Your task to perform on an android device: Open Android settings Image 0: 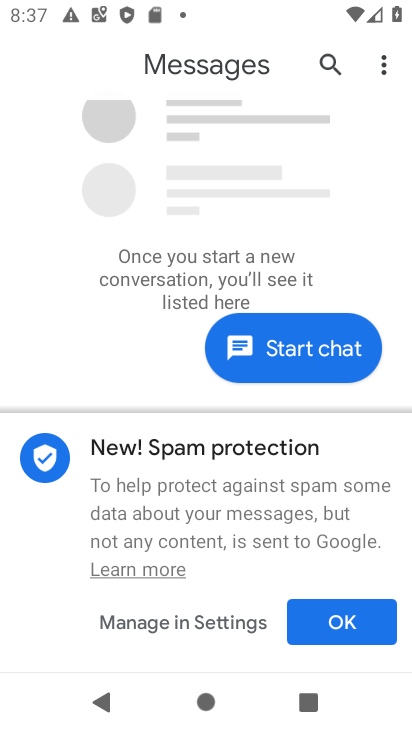
Step 0: press home button
Your task to perform on an android device: Open Android settings Image 1: 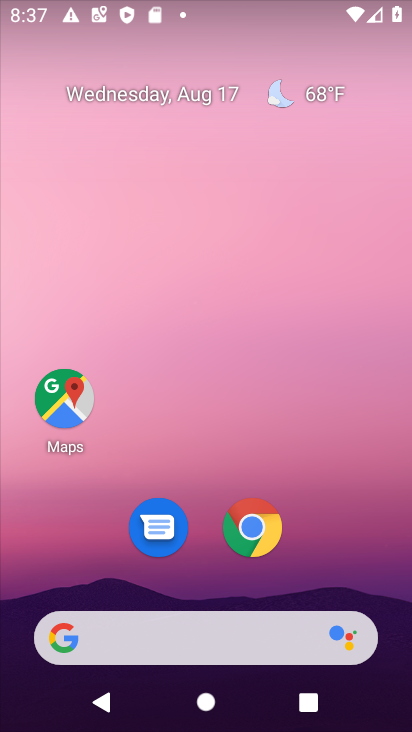
Step 1: drag from (194, 599) to (204, 111)
Your task to perform on an android device: Open Android settings Image 2: 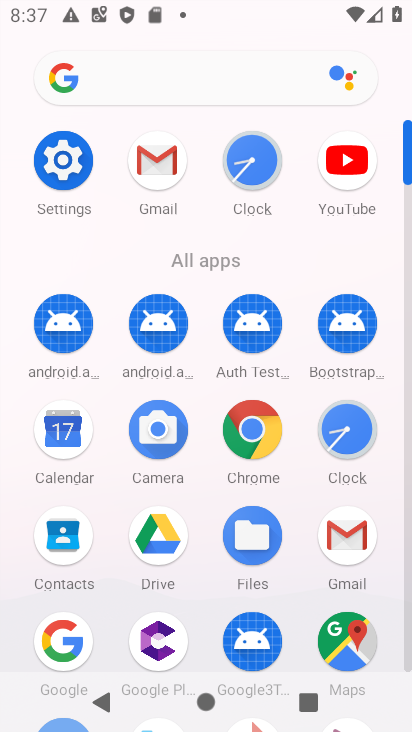
Step 2: click (65, 174)
Your task to perform on an android device: Open Android settings Image 3: 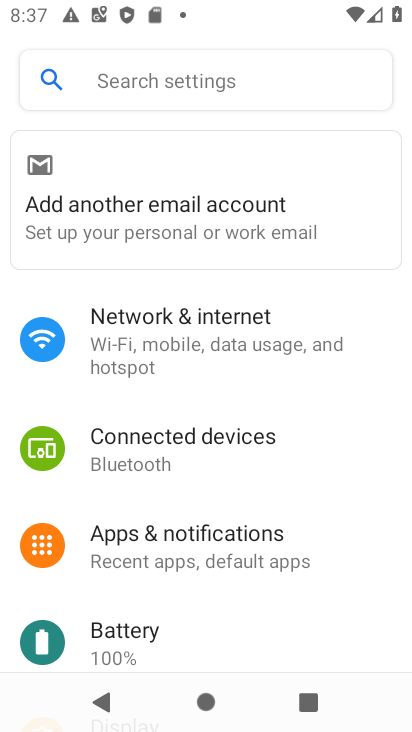
Step 3: task complete